Your task to perform on an android device: open a new tab in the chrome app Image 0: 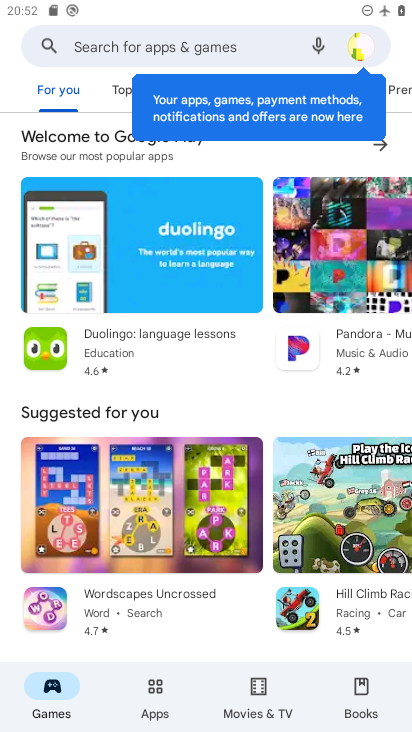
Step 0: press home button
Your task to perform on an android device: open a new tab in the chrome app Image 1: 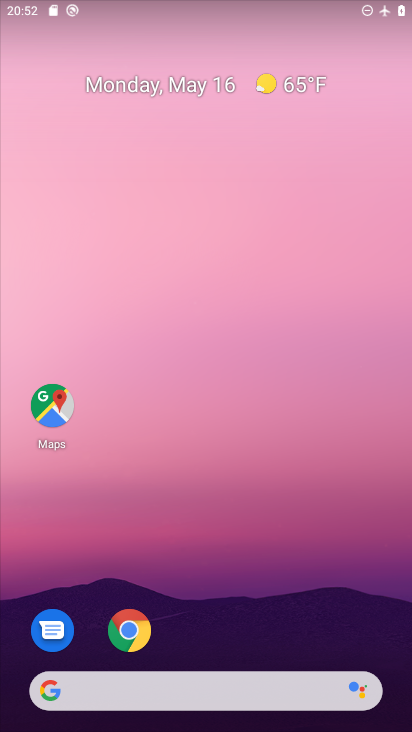
Step 1: click (117, 645)
Your task to perform on an android device: open a new tab in the chrome app Image 2: 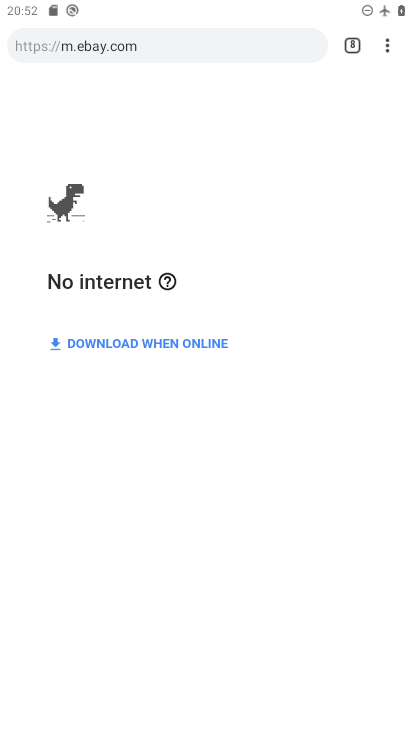
Step 2: drag from (386, 42) to (163, 115)
Your task to perform on an android device: open a new tab in the chrome app Image 3: 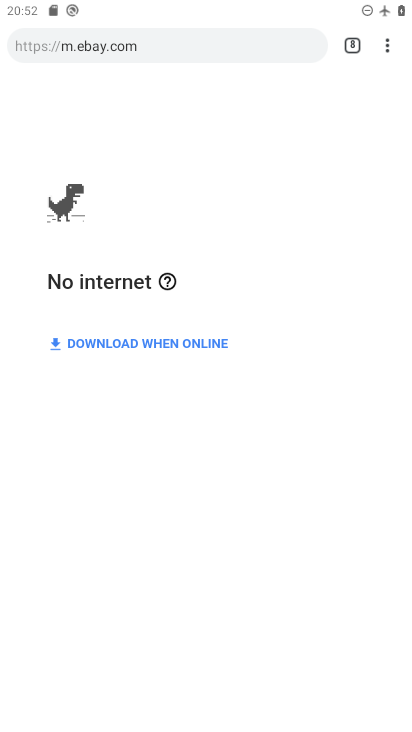
Step 3: click (340, 49)
Your task to perform on an android device: open a new tab in the chrome app Image 4: 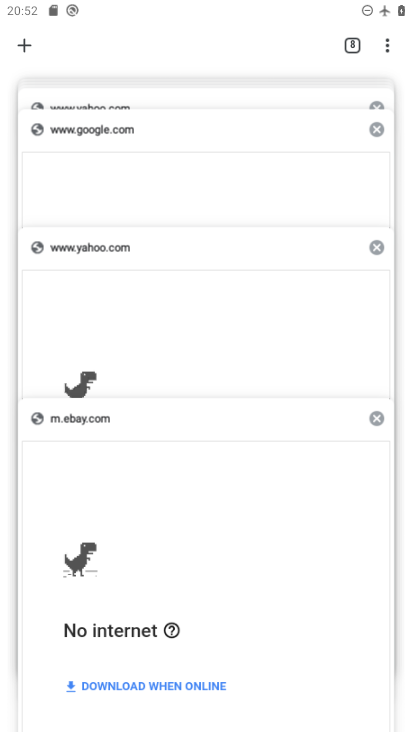
Step 4: click (19, 50)
Your task to perform on an android device: open a new tab in the chrome app Image 5: 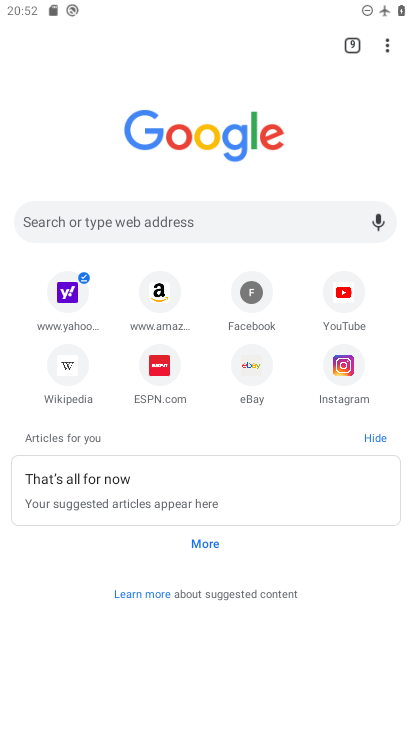
Step 5: task complete